Your task to perform on an android device: Open Google Chrome and open the bookmarks view Image 0: 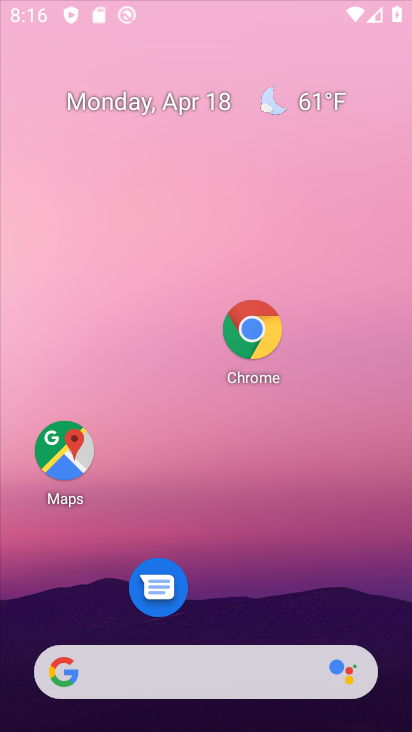
Step 0: click (279, 304)
Your task to perform on an android device: Open Google Chrome and open the bookmarks view Image 1: 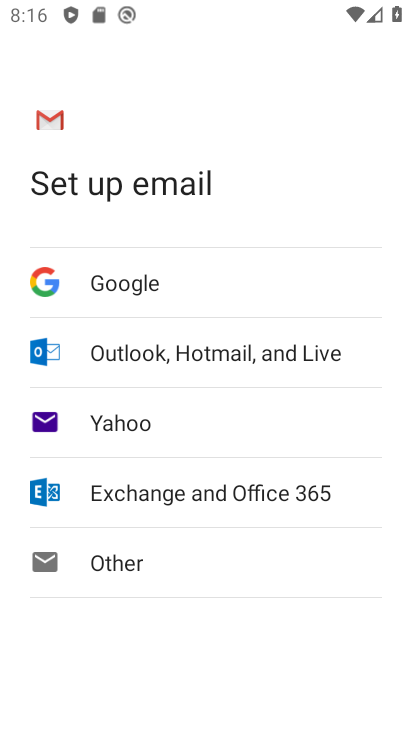
Step 1: press home button
Your task to perform on an android device: Open Google Chrome and open the bookmarks view Image 2: 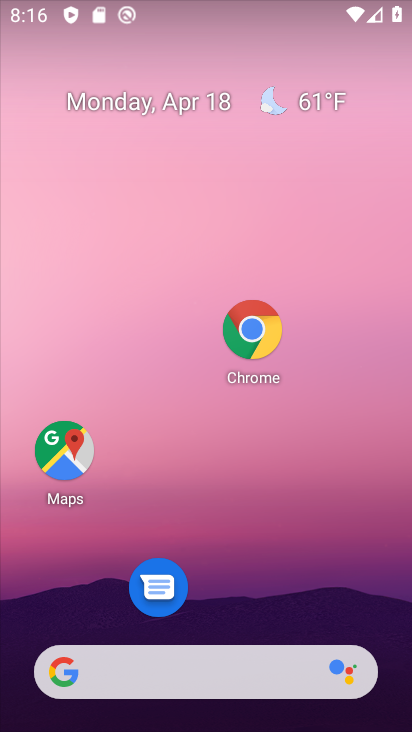
Step 2: drag from (221, 592) to (229, 225)
Your task to perform on an android device: Open Google Chrome and open the bookmarks view Image 3: 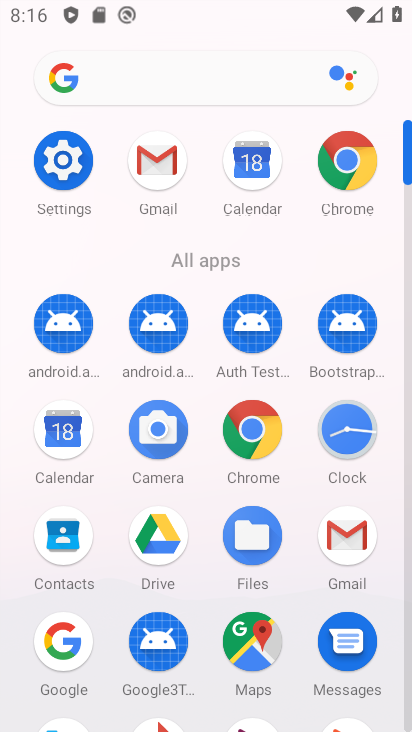
Step 3: click (340, 163)
Your task to perform on an android device: Open Google Chrome and open the bookmarks view Image 4: 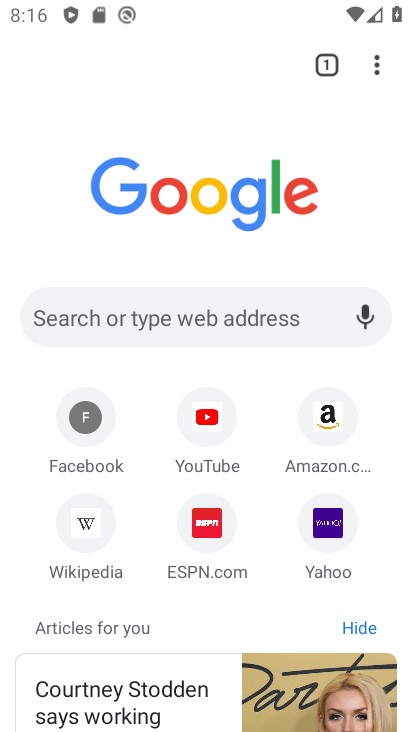
Step 4: click (375, 67)
Your task to perform on an android device: Open Google Chrome and open the bookmarks view Image 5: 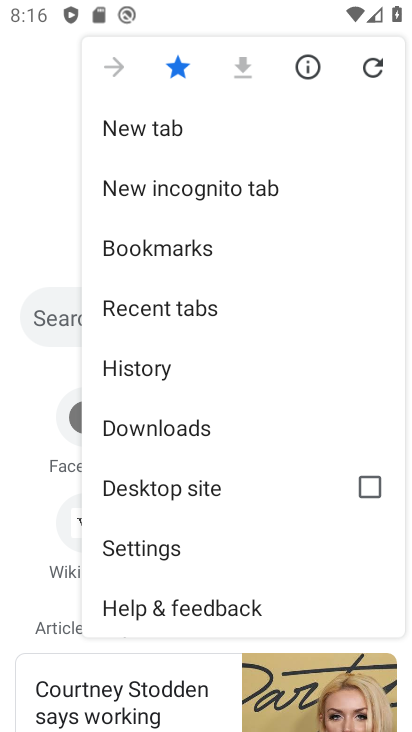
Step 5: click (216, 236)
Your task to perform on an android device: Open Google Chrome and open the bookmarks view Image 6: 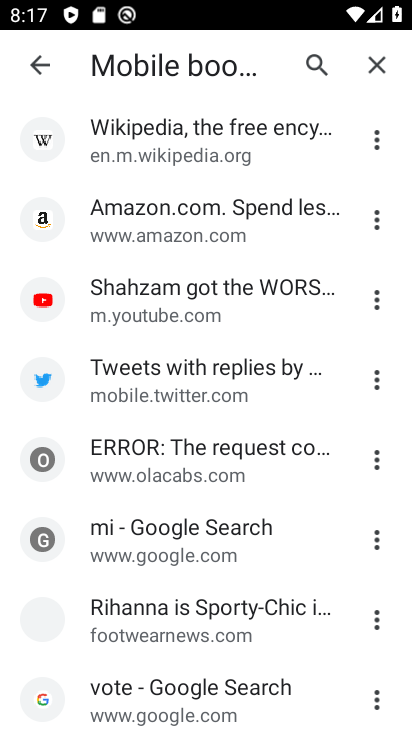
Step 6: task complete